Your task to perform on an android device: remove spam from my inbox in the gmail app Image 0: 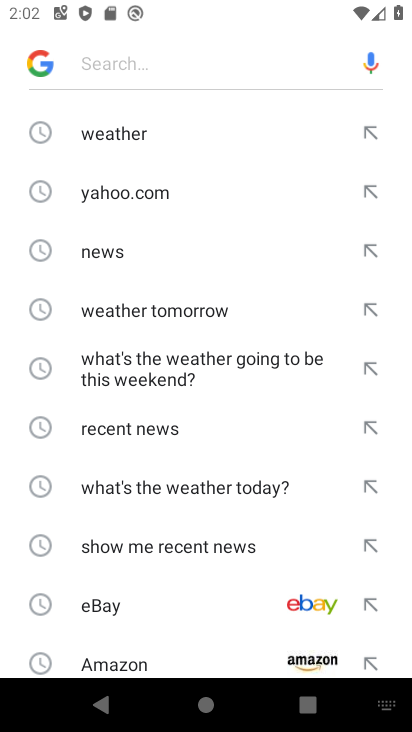
Step 0: press home button
Your task to perform on an android device: remove spam from my inbox in the gmail app Image 1: 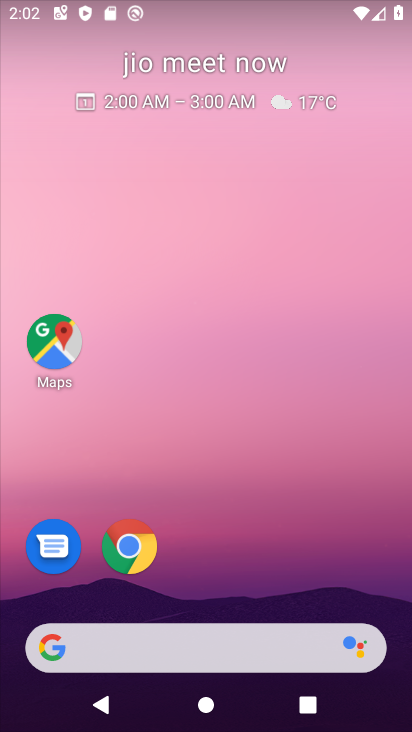
Step 1: drag from (239, 586) to (283, 129)
Your task to perform on an android device: remove spam from my inbox in the gmail app Image 2: 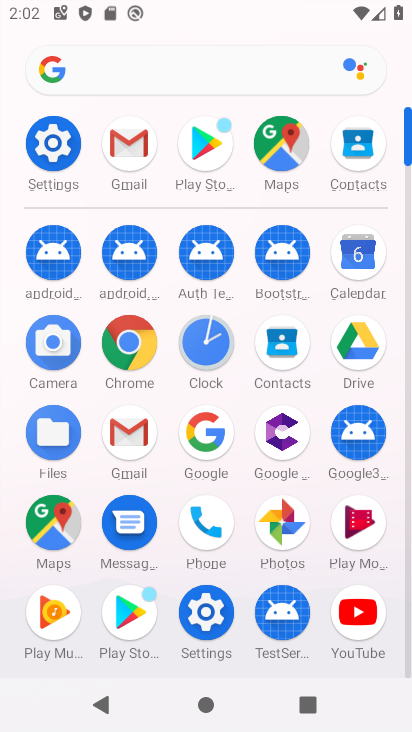
Step 2: click (115, 142)
Your task to perform on an android device: remove spam from my inbox in the gmail app Image 3: 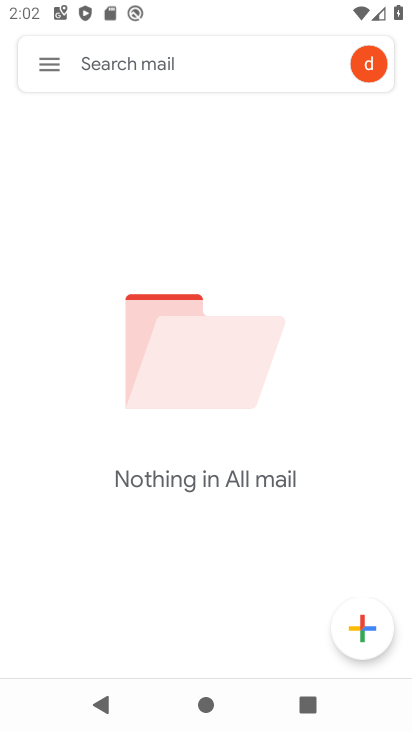
Step 3: click (51, 67)
Your task to perform on an android device: remove spam from my inbox in the gmail app Image 4: 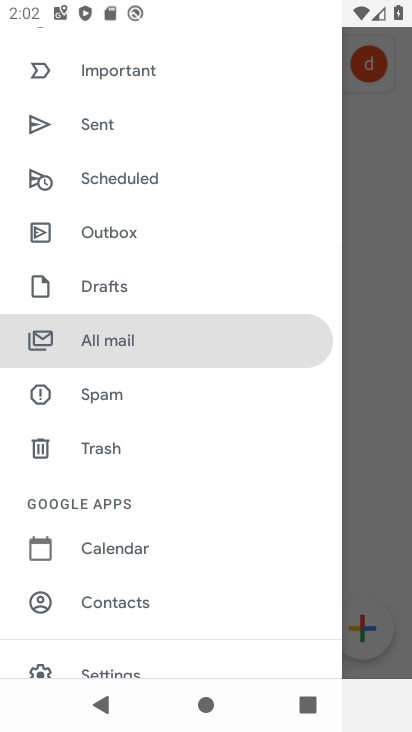
Step 4: drag from (50, 508) to (132, 275)
Your task to perform on an android device: remove spam from my inbox in the gmail app Image 5: 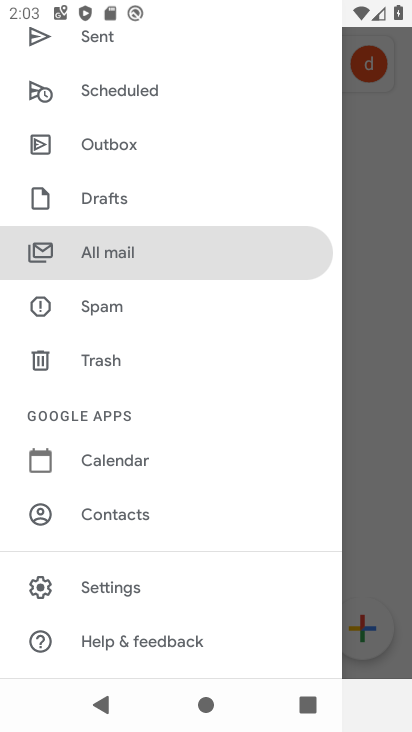
Step 5: drag from (182, 171) to (324, 490)
Your task to perform on an android device: remove spam from my inbox in the gmail app Image 6: 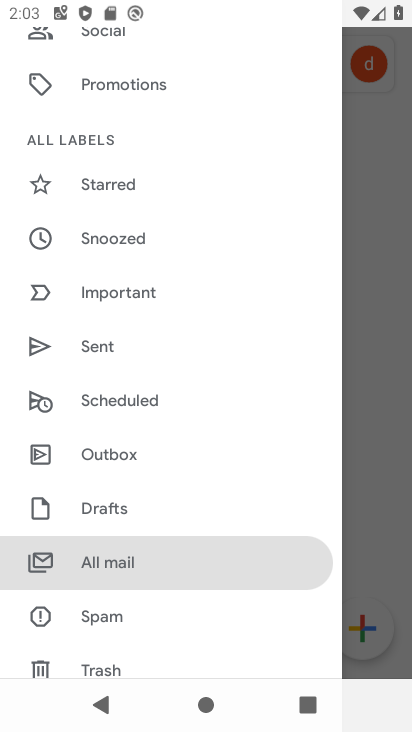
Step 6: drag from (158, 218) to (283, 711)
Your task to perform on an android device: remove spam from my inbox in the gmail app Image 7: 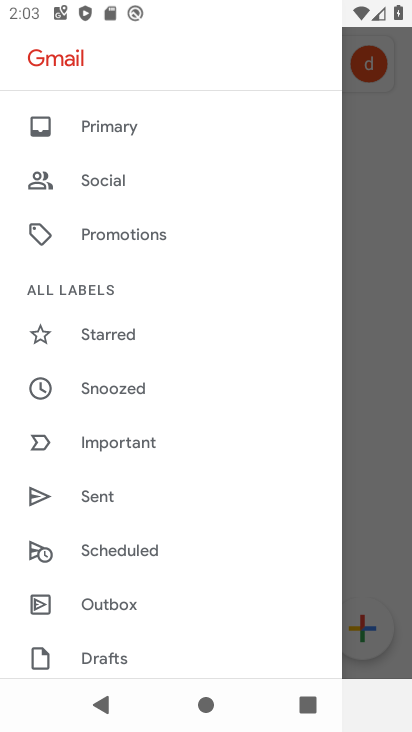
Step 7: click (188, 127)
Your task to perform on an android device: remove spam from my inbox in the gmail app Image 8: 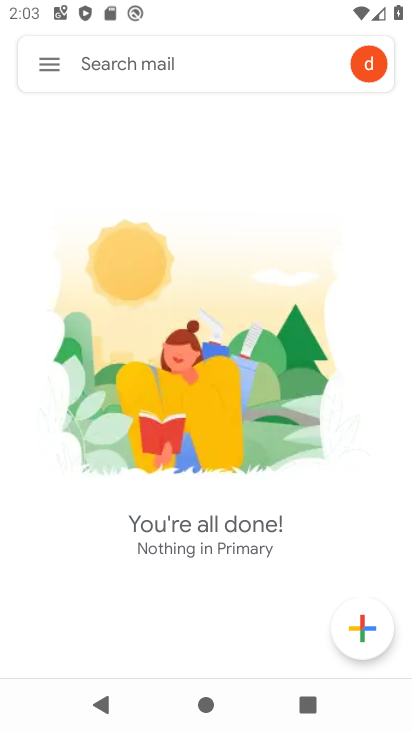
Step 8: task complete